Your task to perform on an android device: Open eBay Image 0: 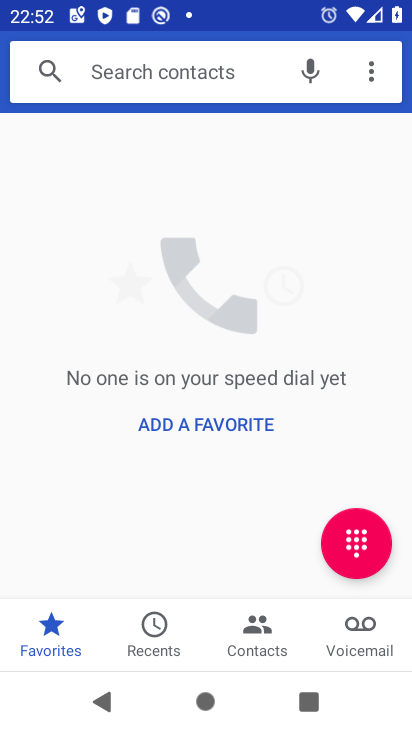
Step 0: press home button
Your task to perform on an android device: Open eBay Image 1: 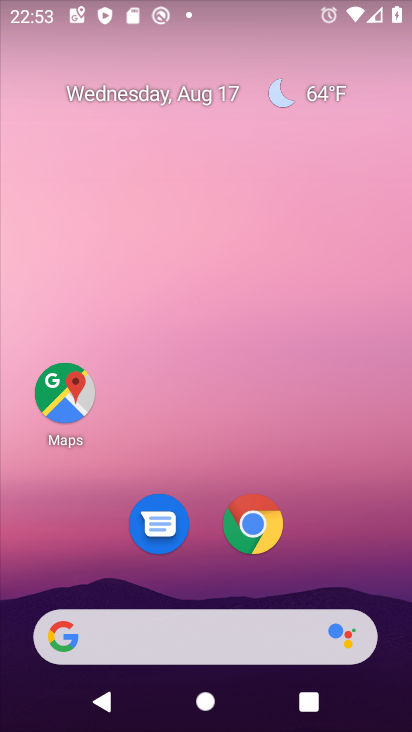
Step 1: click (199, 632)
Your task to perform on an android device: Open eBay Image 2: 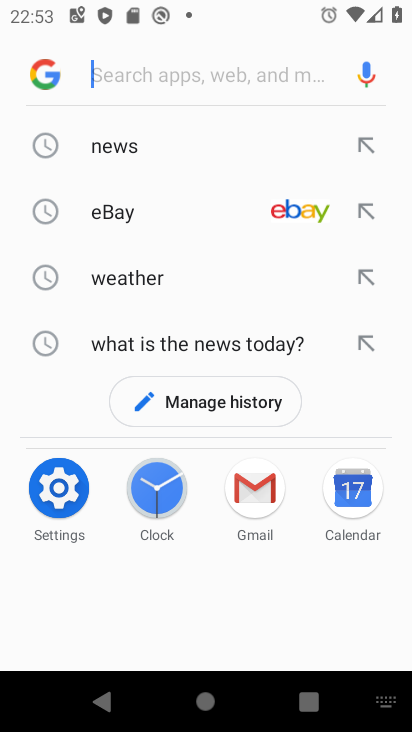
Step 2: click (244, 204)
Your task to perform on an android device: Open eBay Image 3: 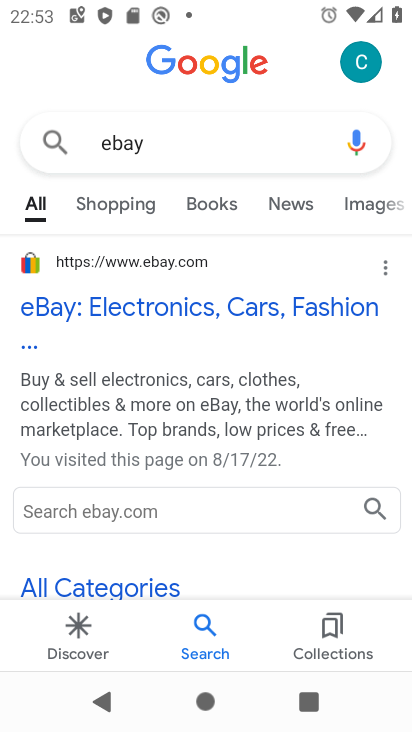
Step 3: click (59, 309)
Your task to perform on an android device: Open eBay Image 4: 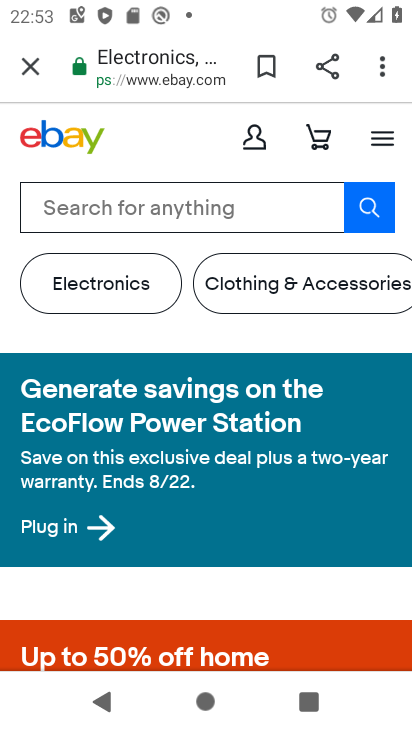
Step 4: task complete